Your task to perform on an android device: Add energizer triple a to the cart on amazon.com, then select checkout. Image 0: 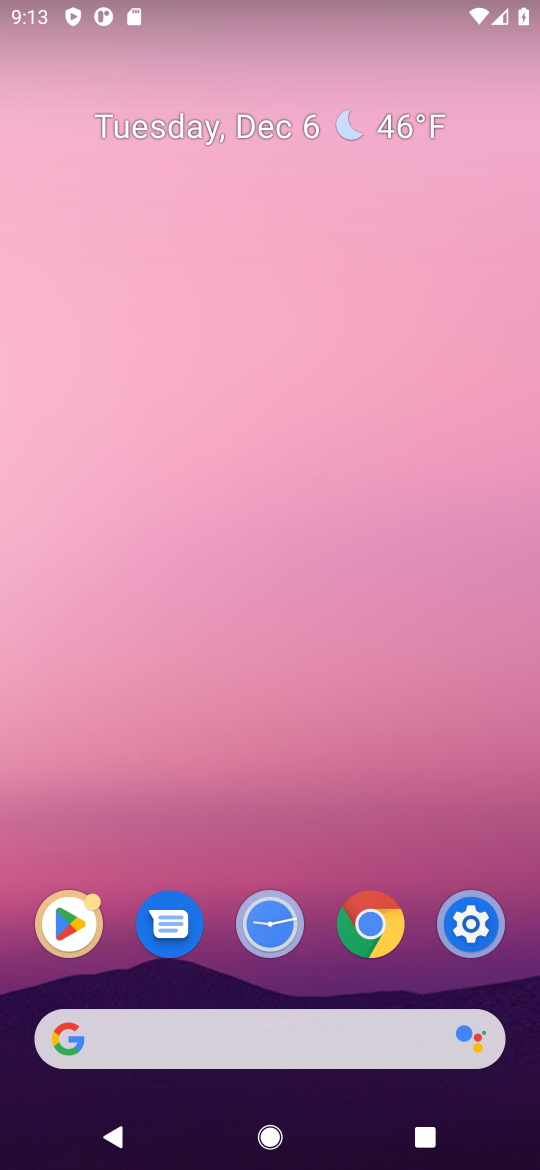
Step 0: click (191, 1049)
Your task to perform on an android device: Add energizer triple a to the cart on amazon.com, then select checkout. Image 1: 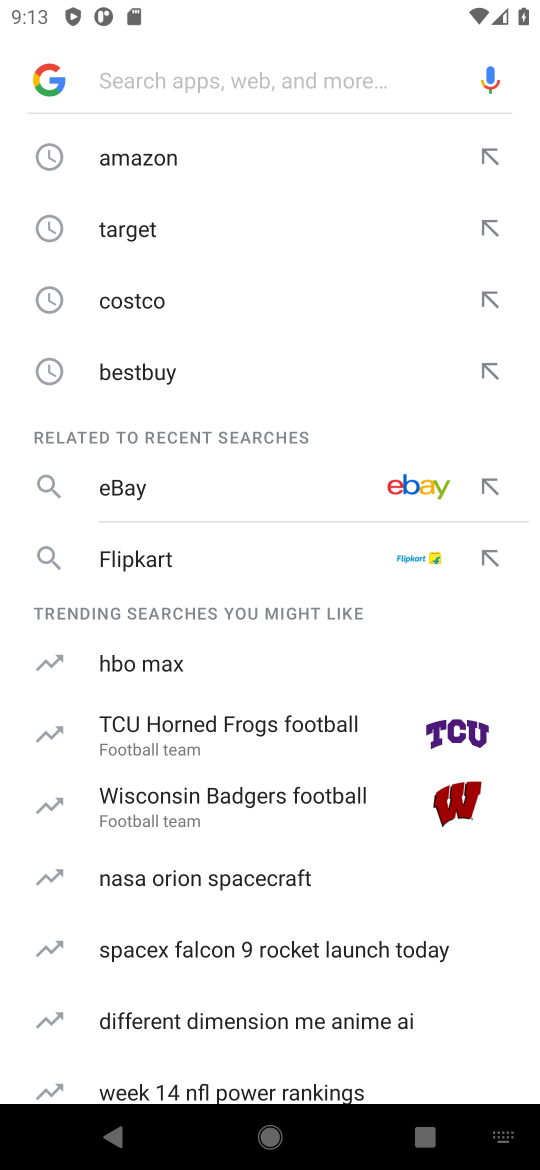
Step 1: click (236, 168)
Your task to perform on an android device: Add energizer triple a to the cart on amazon.com, then select checkout. Image 2: 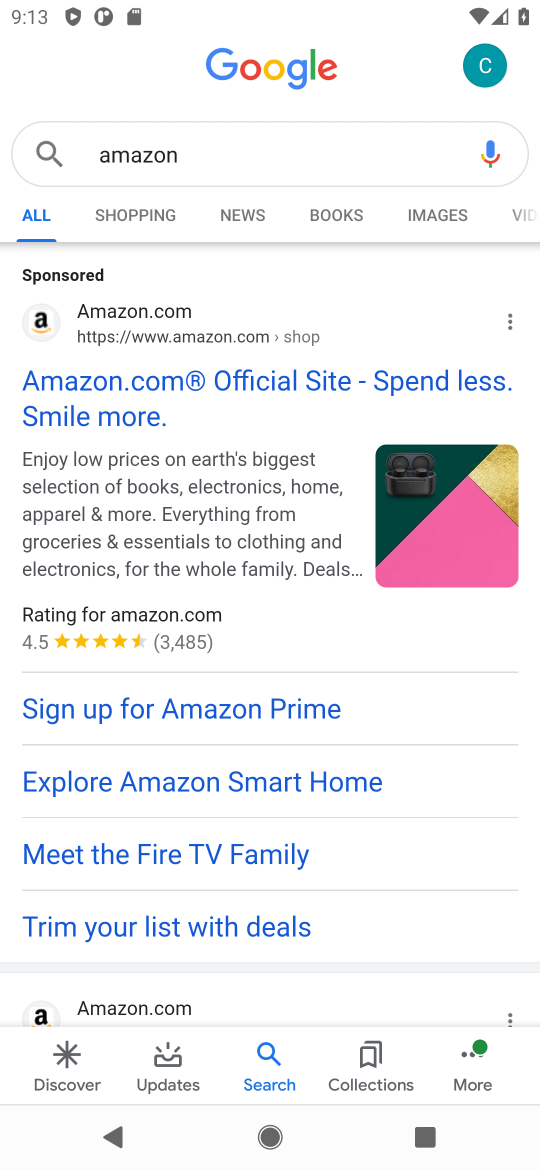
Step 2: click (226, 371)
Your task to perform on an android device: Add energizer triple a to the cart on amazon.com, then select checkout. Image 3: 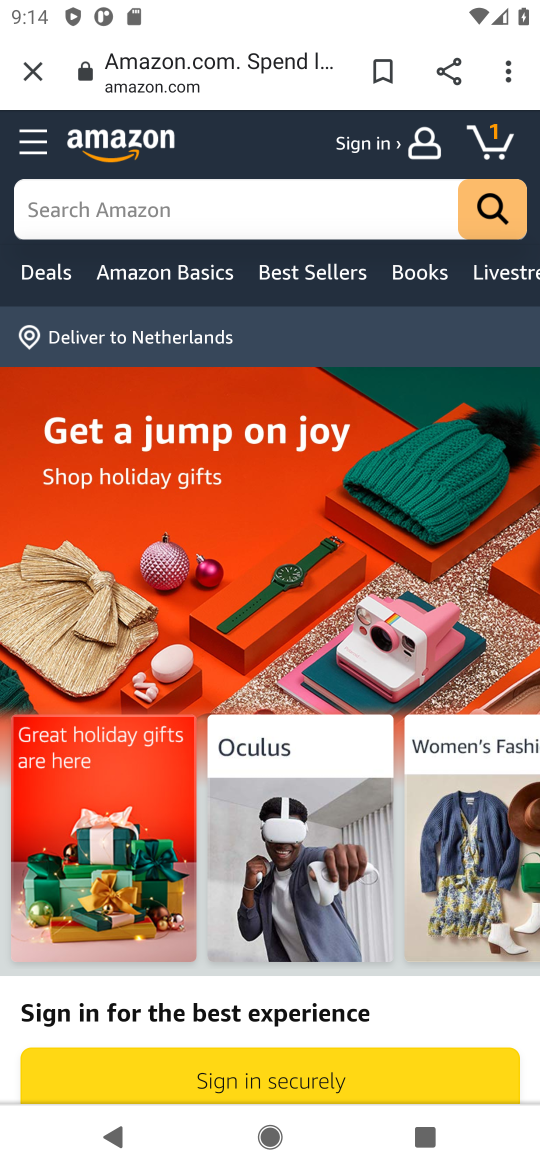
Step 3: click (160, 222)
Your task to perform on an android device: Add energizer triple a to the cart on amazon.com, then select checkout. Image 4: 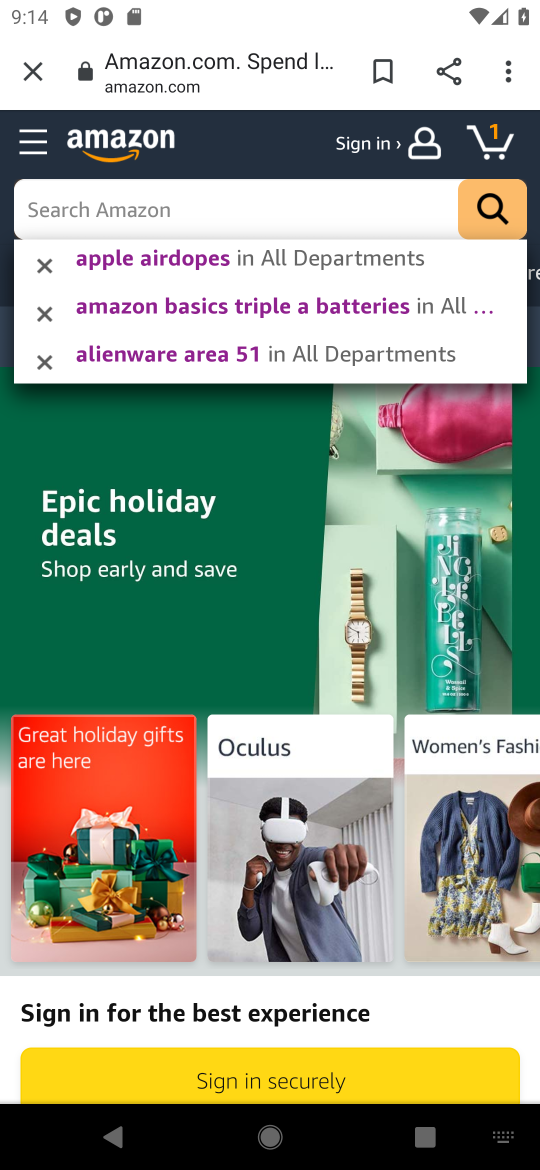
Step 4: type "energizer triple a"
Your task to perform on an android device: Add energizer triple a to the cart on amazon.com, then select checkout. Image 5: 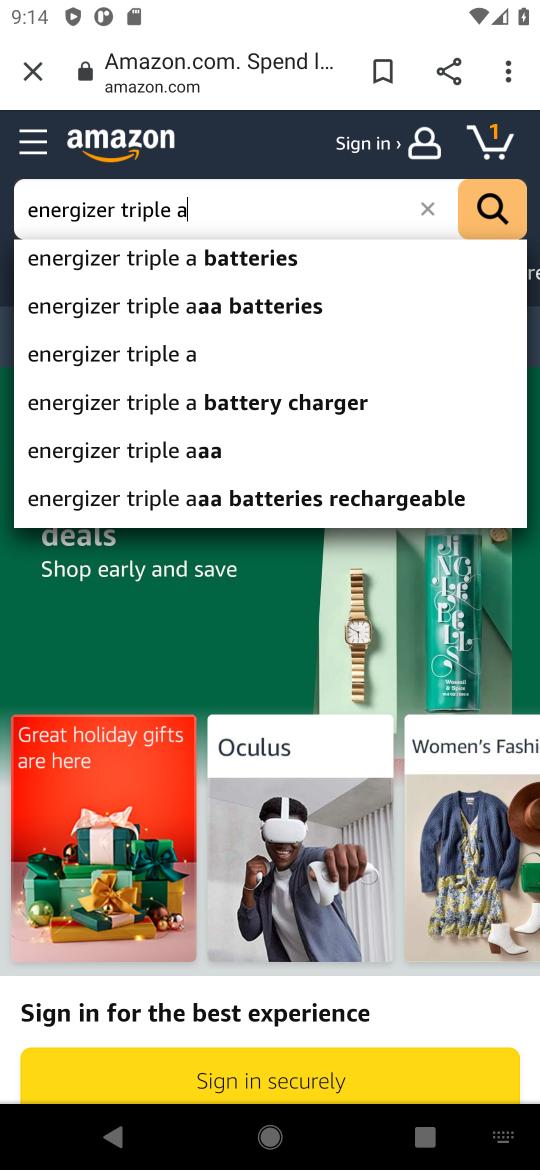
Step 5: click (482, 226)
Your task to perform on an android device: Add energizer triple a to the cart on amazon.com, then select checkout. Image 6: 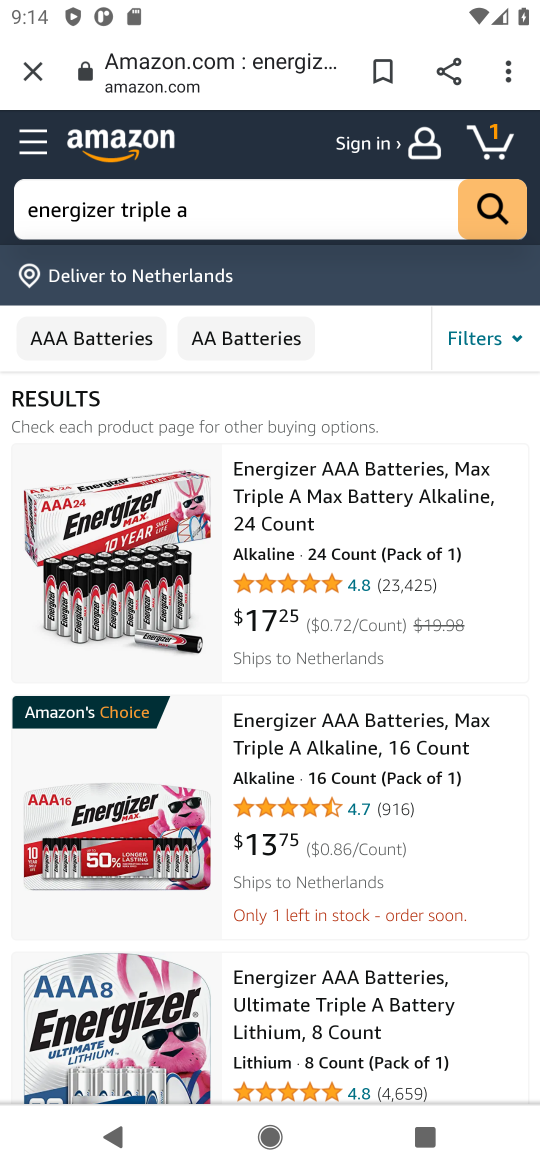
Step 6: click (325, 492)
Your task to perform on an android device: Add energizer triple a to the cart on amazon.com, then select checkout. Image 7: 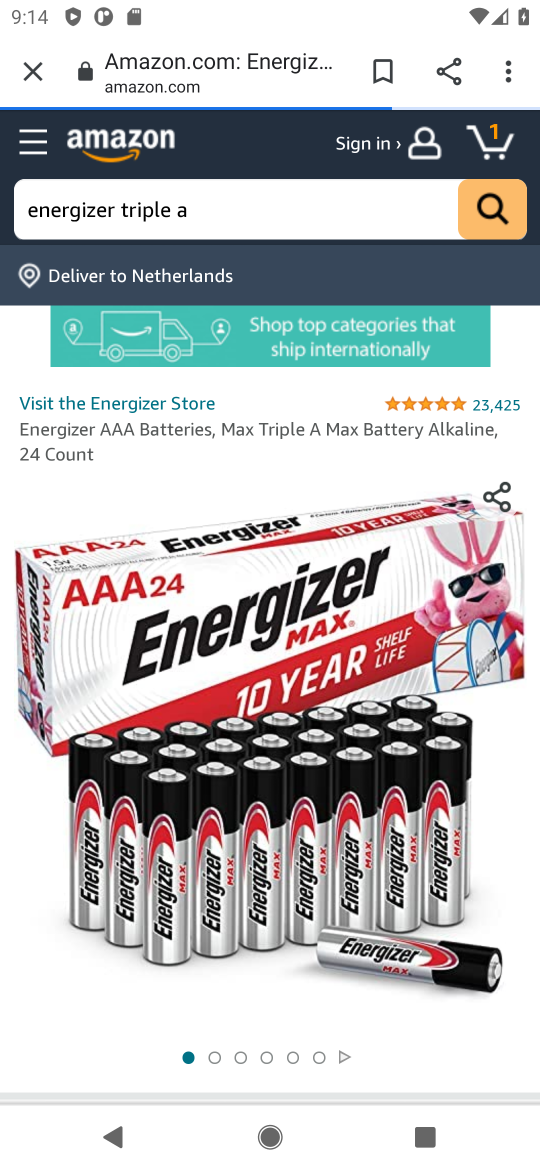
Step 7: drag from (354, 970) to (344, 404)
Your task to perform on an android device: Add energizer triple a to the cart on amazon.com, then select checkout. Image 8: 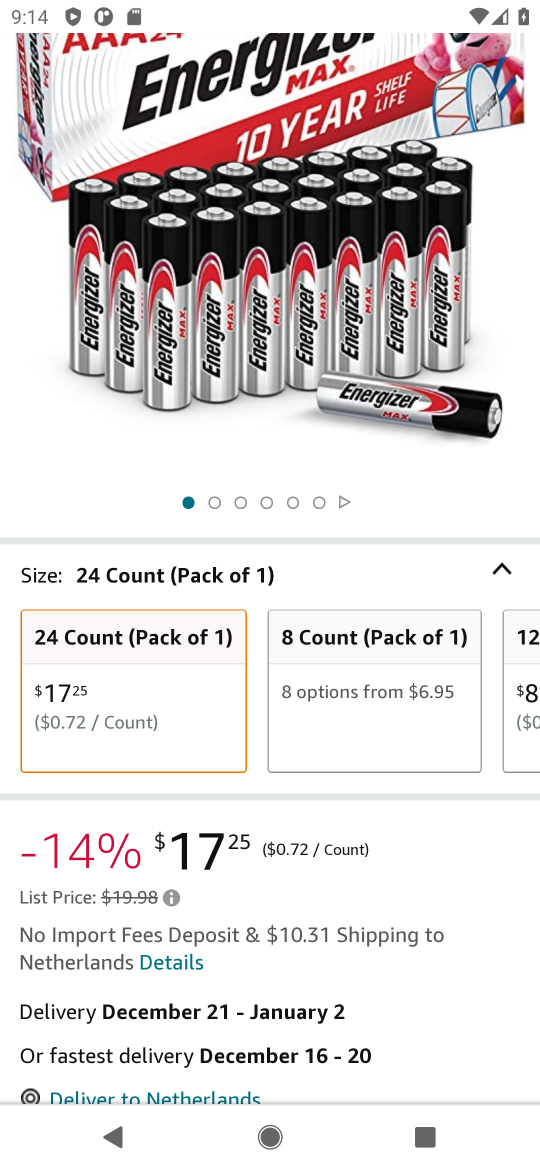
Step 8: drag from (426, 894) to (318, 410)
Your task to perform on an android device: Add energizer triple a to the cart on amazon.com, then select checkout. Image 9: 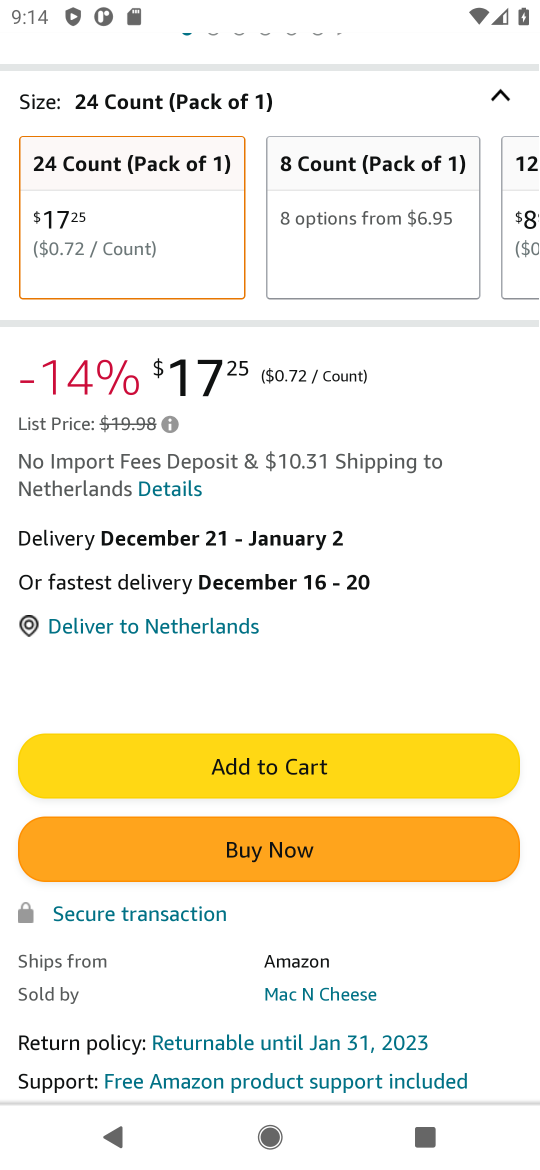
Step 9: click (396, 767)
Your task to perform on an android device: Add energizer triple a to the cart on amazon.com, then select checkout. Image 10: 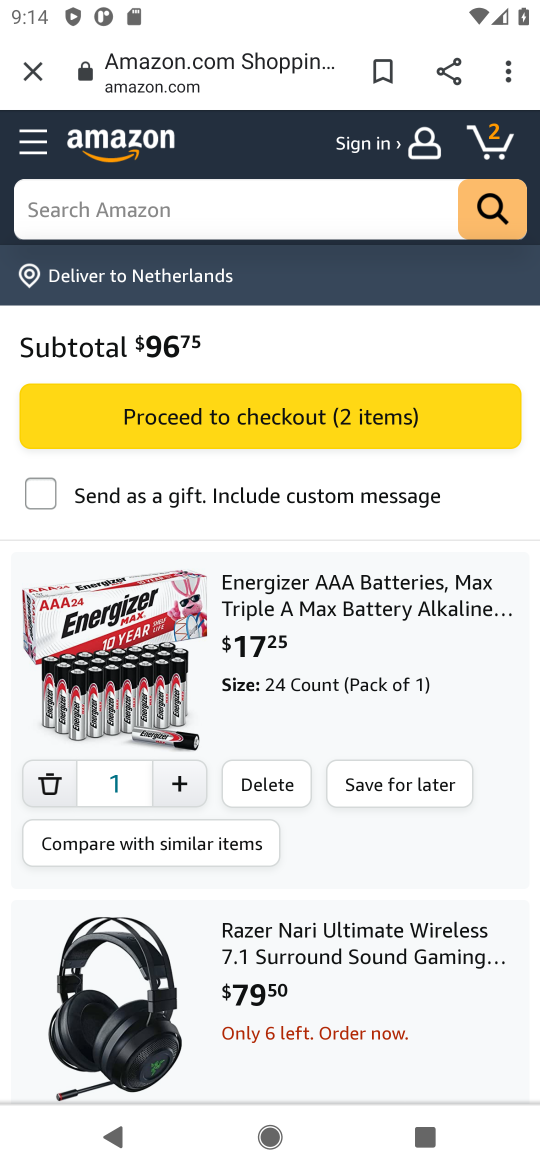
Step 10: task complete